Your task to perform on an android device: Open Chrome and go to the settings page Image 0: 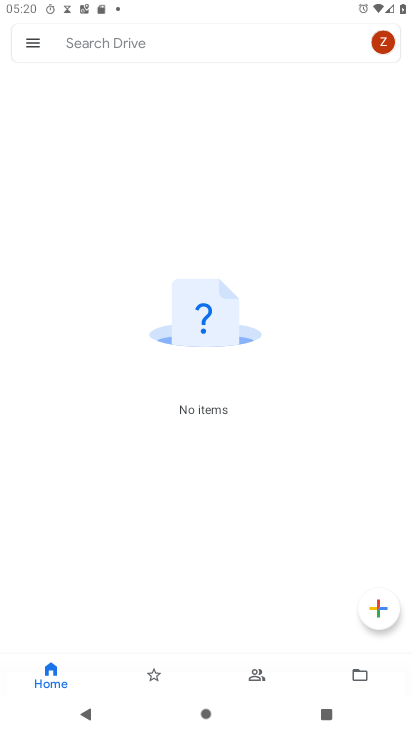
Step 0: press home button
Your task to perform on an android device: Open Chrome and go to the settings page Image 1: 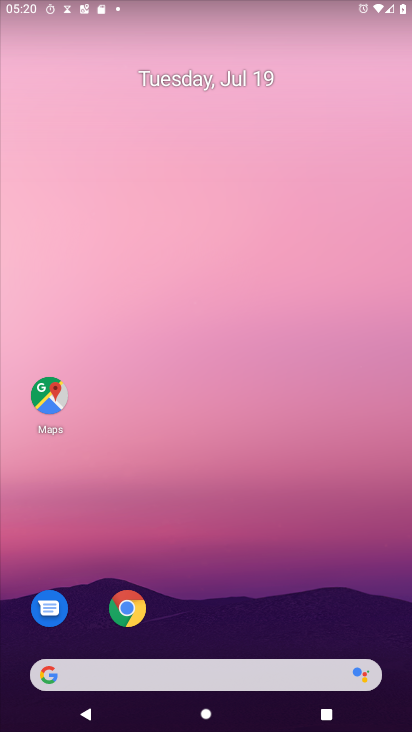
Step 1: click (128, 608)
Your task to perform on an android device: Open Chrome and go to the settings page Image 2: 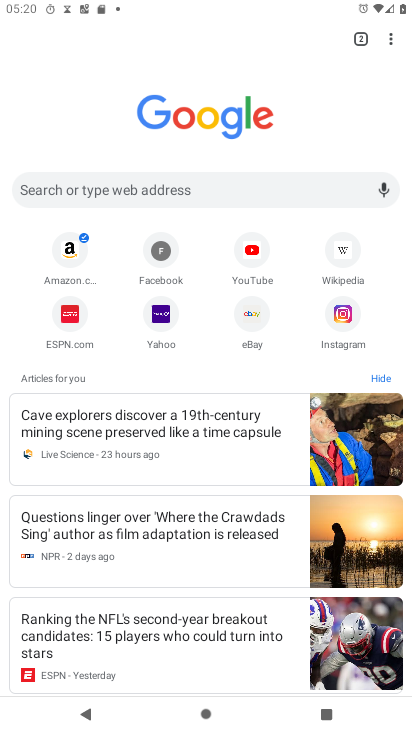
Step 2: click (389, 38)
Your task to perform on an android device: Open Chrome and go to the settings page Image 3: 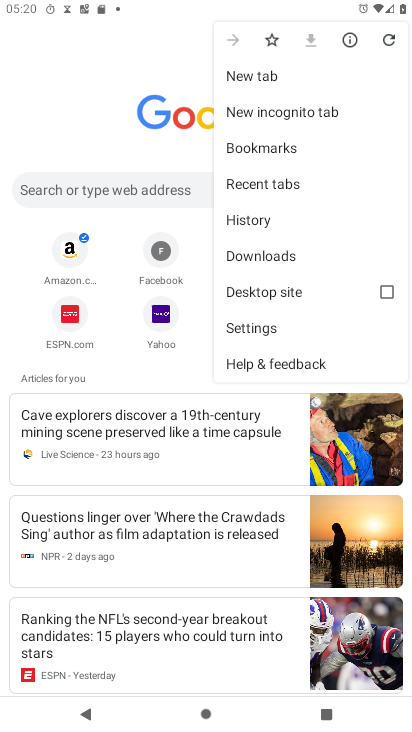
Step 3: click (249, 324)
Your task to perform on an android device: Open Chrome and go to the settings page Image 4: 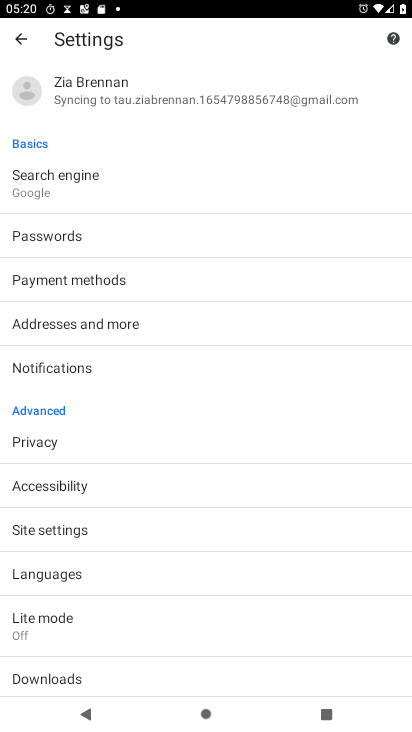
Step 4: task complete